Your task to perform on an android device: Open Youtube and go to the subscriptions tab Image 0: 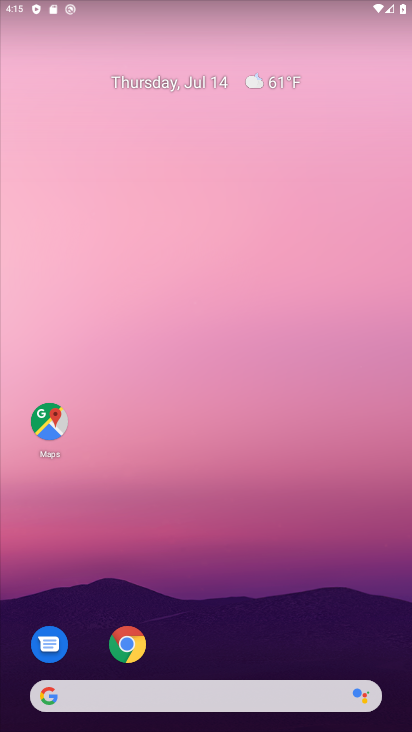
Step 0: drag from (290, 315) to (379, 406)
Your task to perform on an android device: Open Youtube and go to the subscriptions tab Image 1: 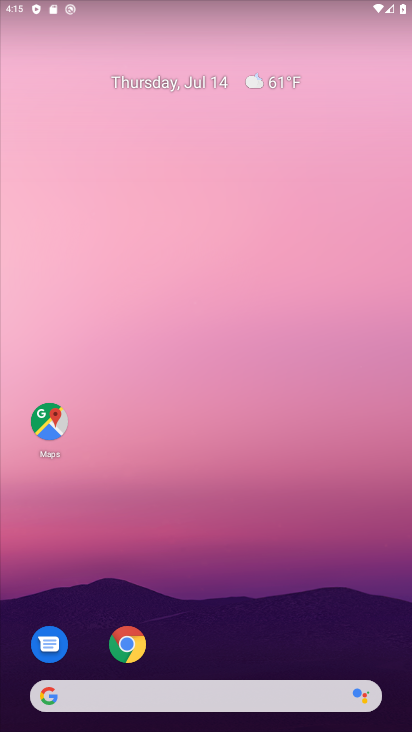
Step 1: drag from (308, 494) to (4, 325)
Your task to perform on an android device: Open Youtube and go to the subscriptions tab Image 2: 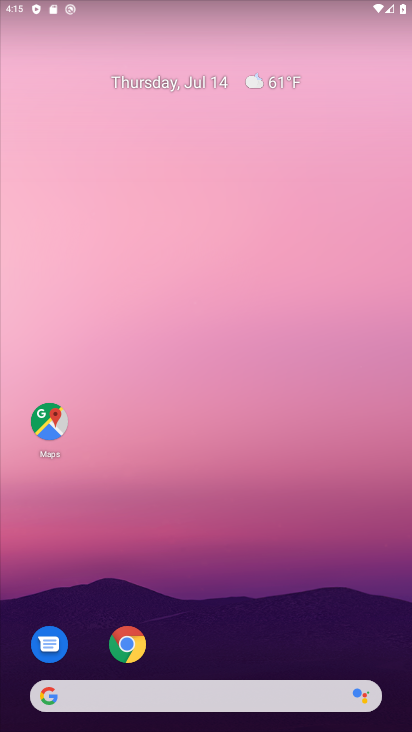
Step 2: drag from (221, 654) to (214, 78)
Your task to perform on an android device: Open Youtube and go to the subscriptions tab Image 3: 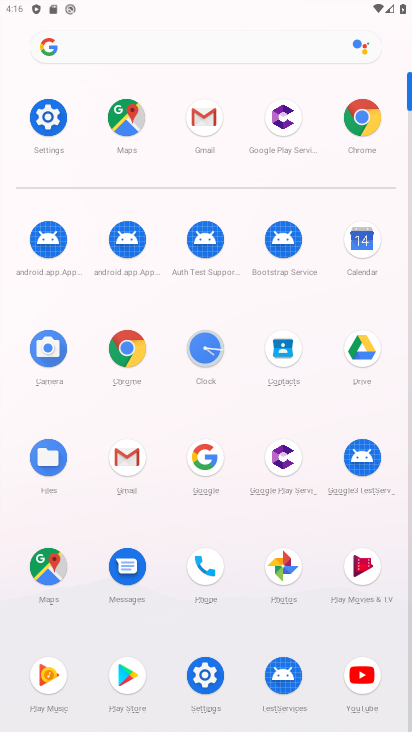
Step 3: click (342, 668)
Your task to perform on an android device: Open Youtube and go to the subscriptions tab Image 4: 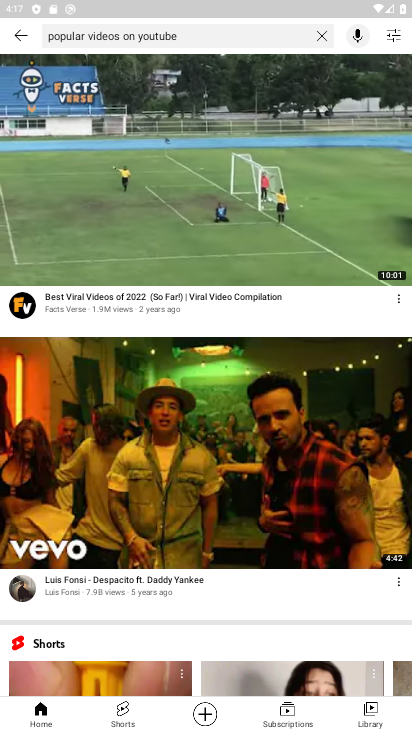
Step 4: click (282, 727)
Your task to perform on an android device: Open Youtube and go to the subscriptions tab Image 5: 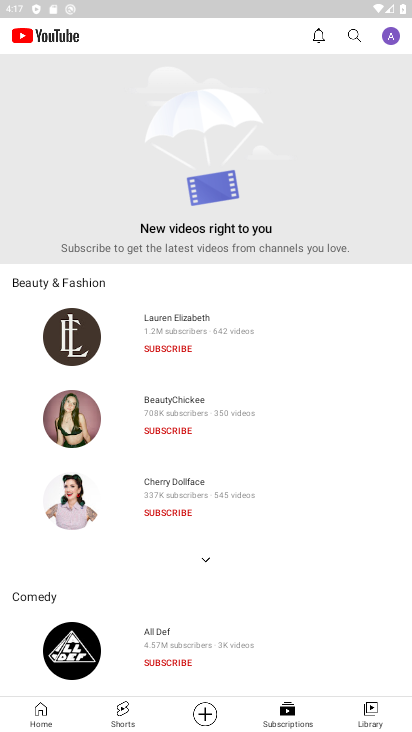
Step 5: task complete